Your task to perform on an android device: Open Chrome and go to the settings page Image 0: 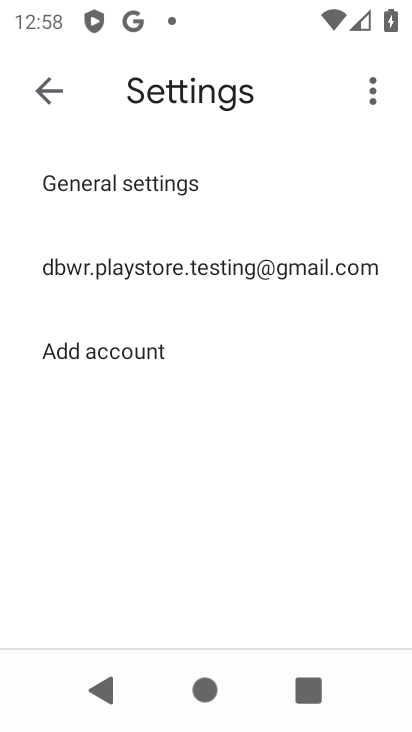
Step 0: press home button
Your task to perform on an android device: Open Chrome and go to the settings page Image 1: 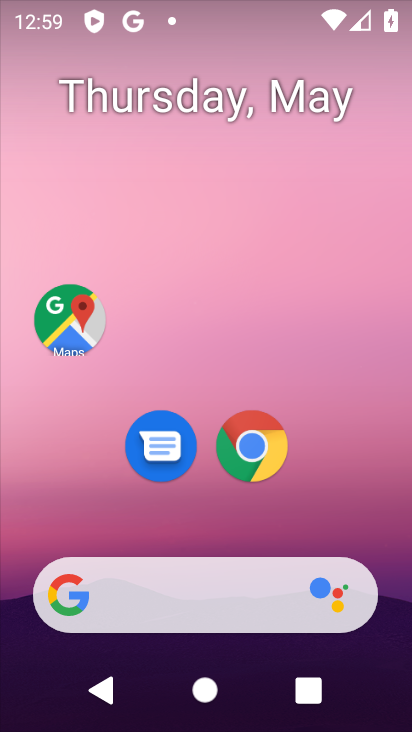
Step 1: click (252, 453)
Your task to perform on an android device: Open Chrome and go to the settings page Image 2: 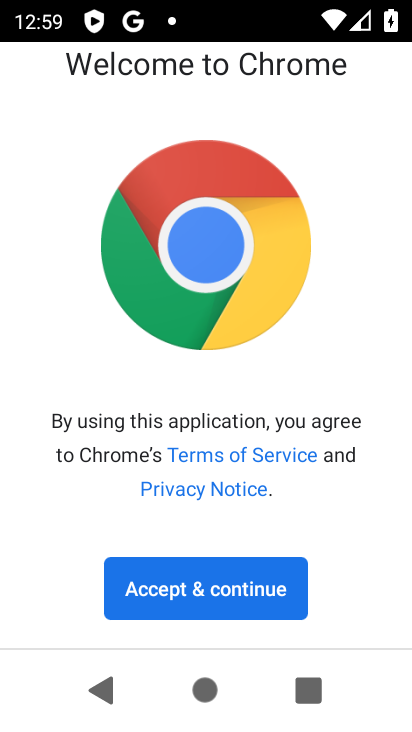
Step 2: click (199, 603)
Your task to perform on an android device: Open Chrome and go to the settings page Image 3: 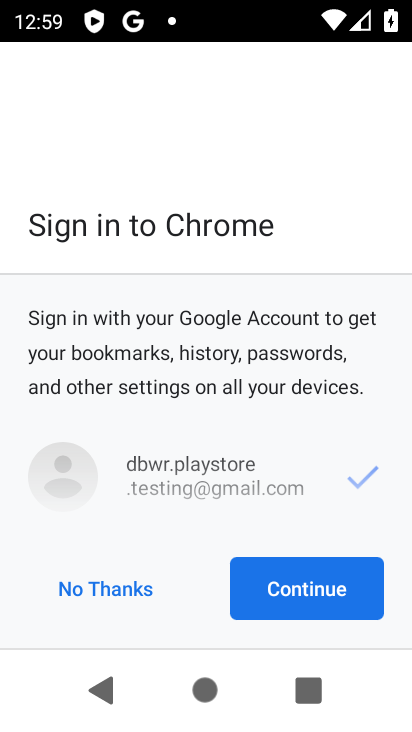
Step 3: click (335, 581)
Your task to perform on an android device: Open Chrome and go to the settings page Image 4: 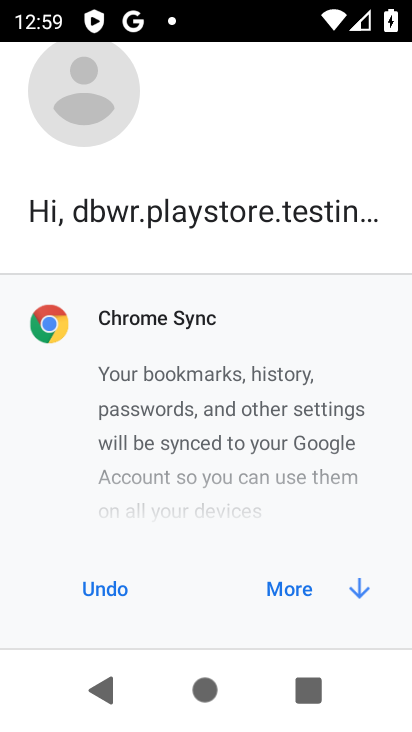
Step 4: click (330, 586)
Your task to perform on an android device: Open Chrome and go to the settings page Image 5: 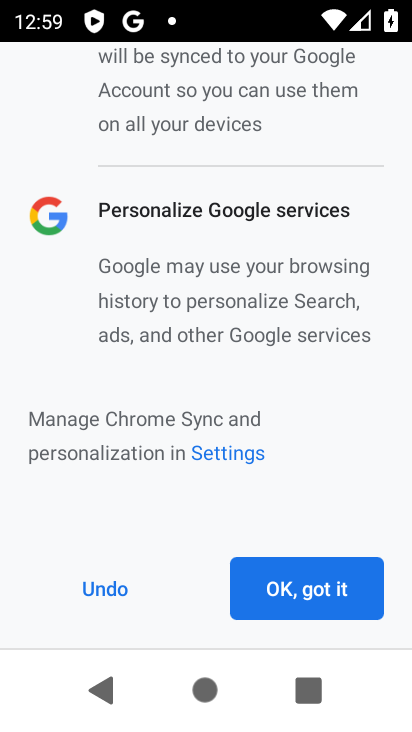
Step 5: click (330, 586)
Your task to perform on an android device: Open Chrome and go to the settings page Image 6: 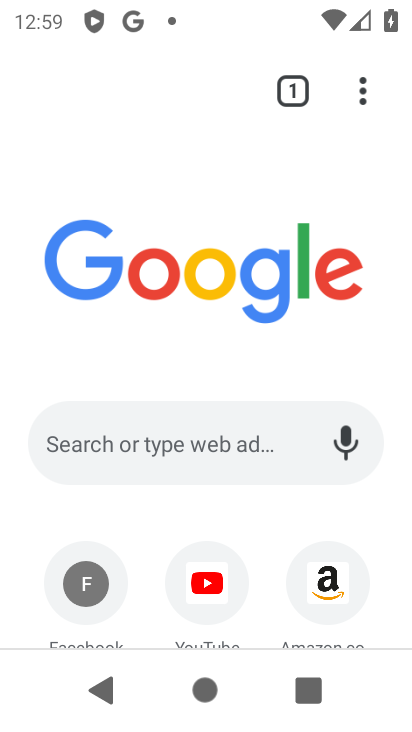
Step 6: drag from (249, 451) to (260, 374)
Your task to perform on an android device: Open Chrome and go to the settings page Image 7: 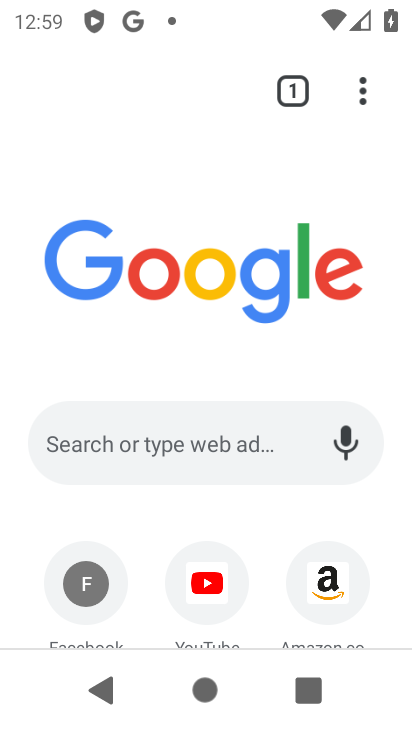
Step 7: click (358, 81)
Your task to perform on an android device: Open Chrome and go to the settings page Image 8: 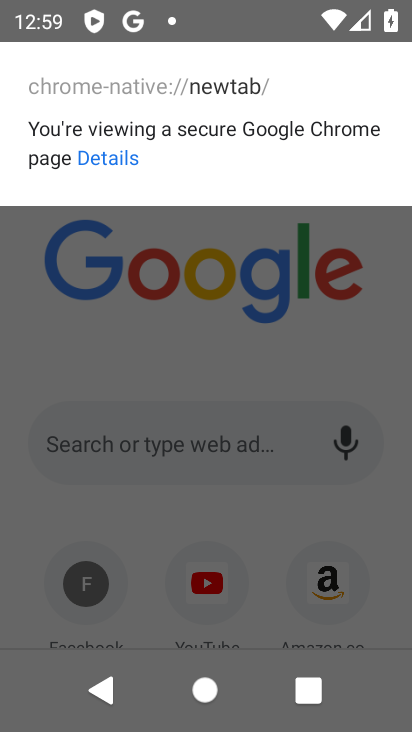
Step 8: click (177, 242)
Your task to perform on an android device: Open Chrome and go to the settings page Image 9: 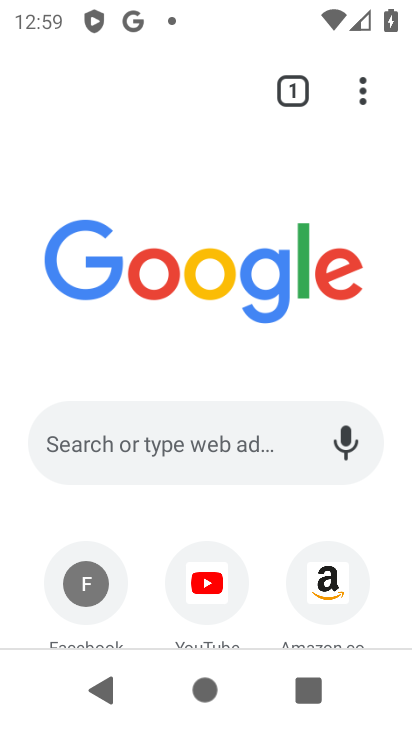
Step 9: click (363, 98)
Your task to perform on an android device: Open Chrome and go to the settings page Image 10: 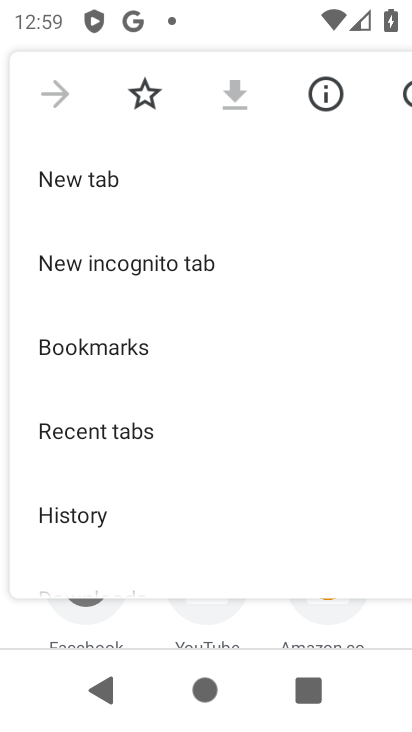
Step 10: drag from (141, 477) to (194, 120)
Your task to perform on an android device: Open Chrome and go to the settings page Image 11: 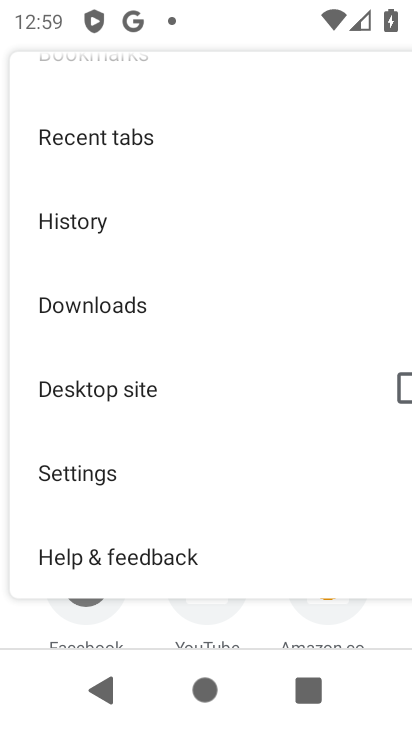
Step 11: click (97, 495)
Your task to perform on an android device: Open Chrome and go to the settings page Image 12: 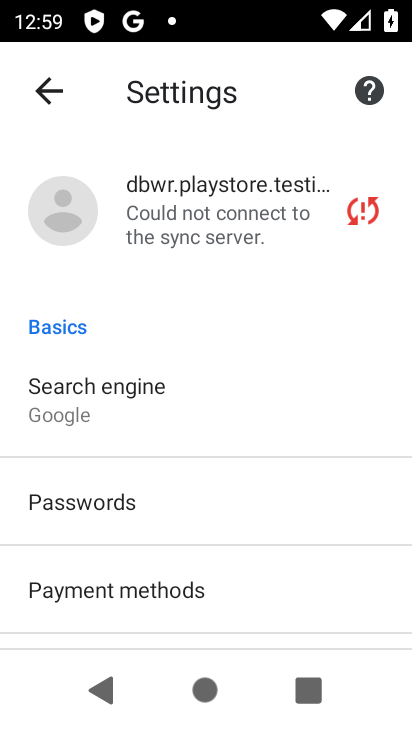
Step 12: click (109, 346)
Your task to perform on an android device: Open Chrome and go to the settings page Image 13: 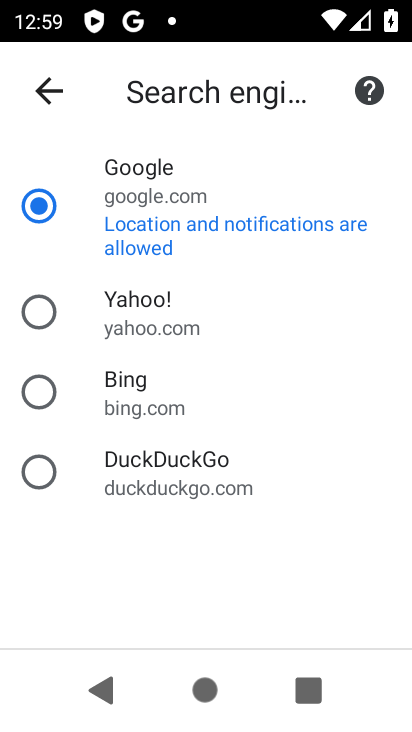
Step 13: task complete